Your task to perform on an android device: Google the capital of Colombia Image 0: 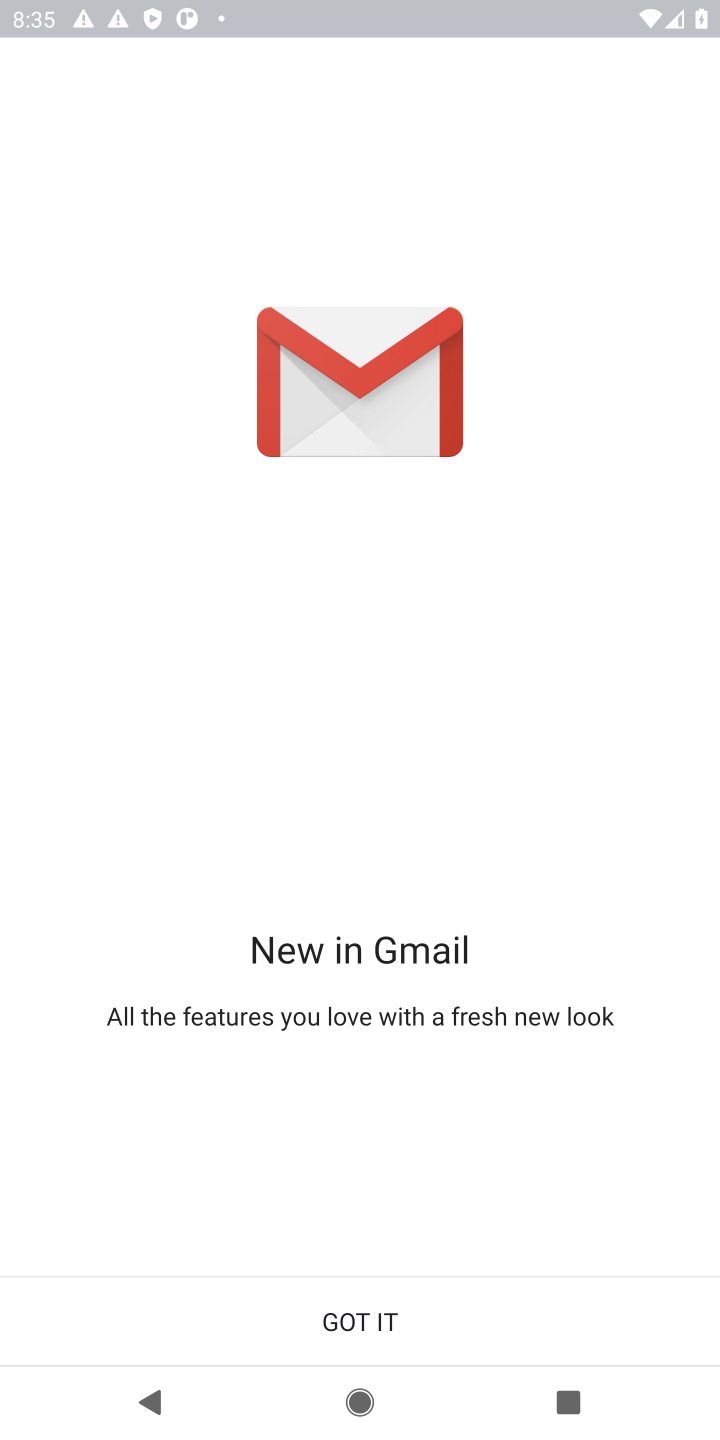
Step 0: press home button
Your task to perform on an android device: Google the capital of Colombia Image 1: 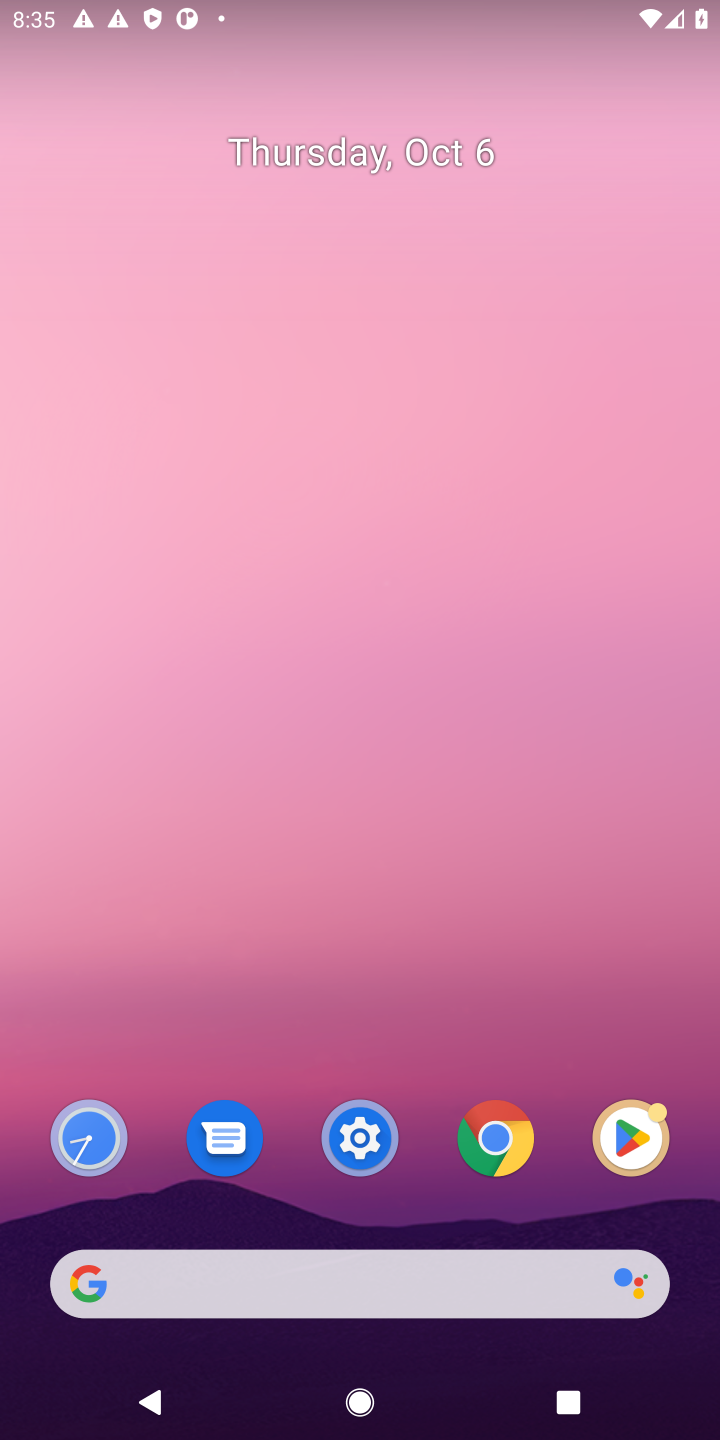
Step 1: click (383, 1273)
Your task to perform on an android device: Google the capital of Colombia Image 2: 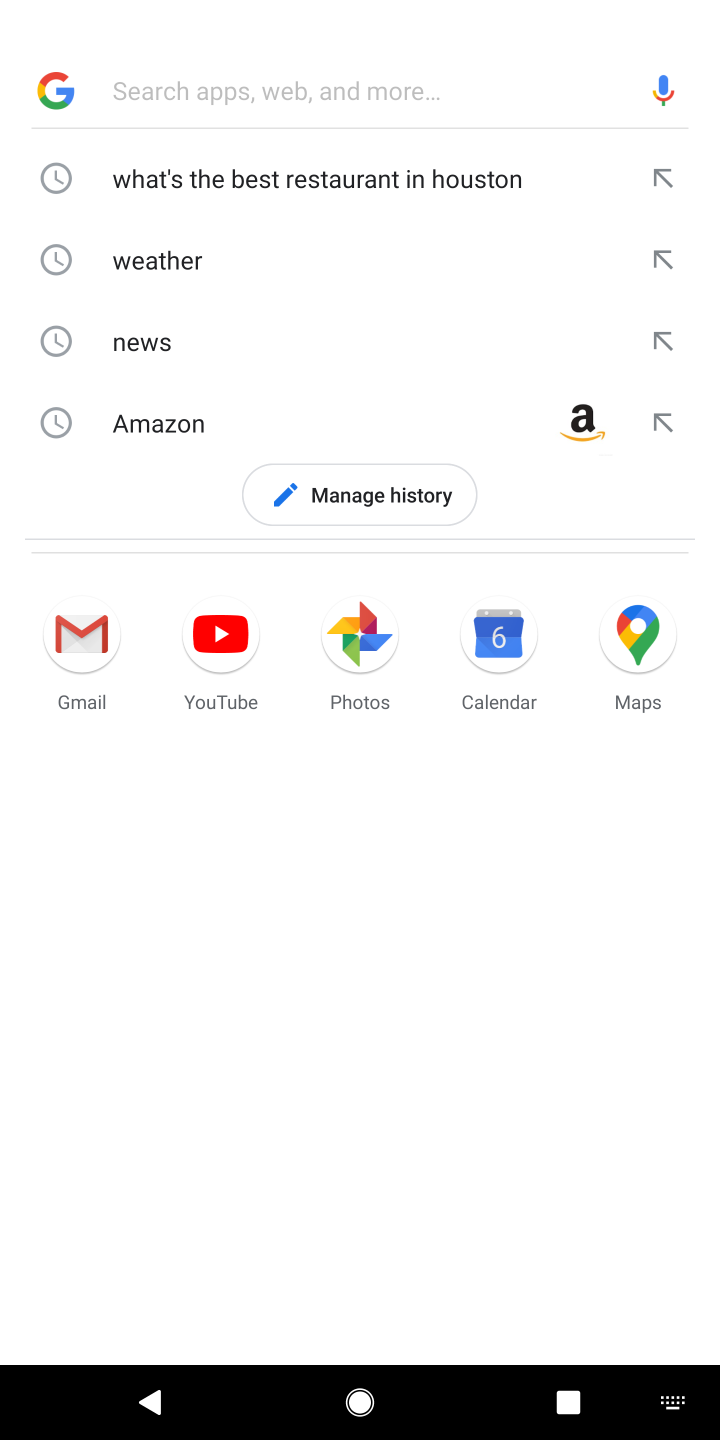
Step 2: type " capital of Colombia"
Your task to perform on an android device: Google the capital of Colombia Image 3: 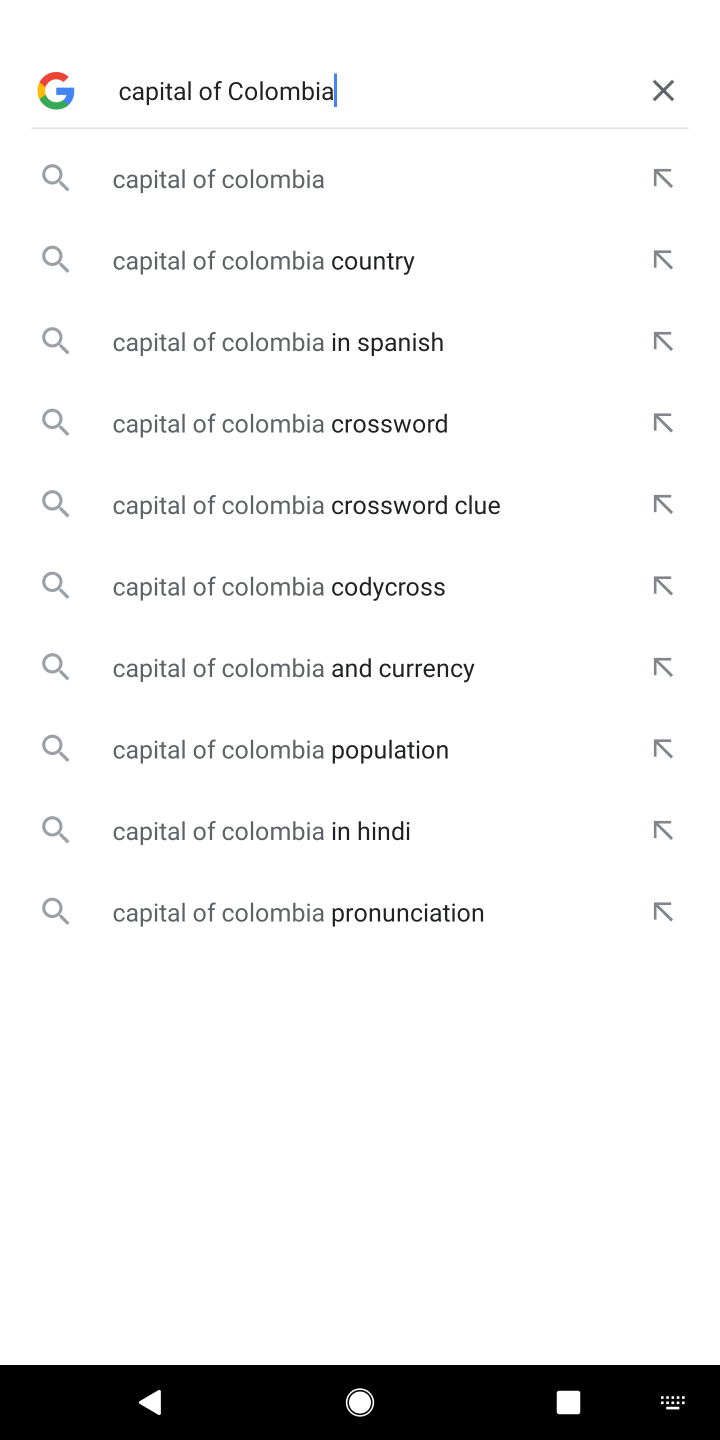
Step 3: click (202, 186)
Your task to perform on an android device: Google the capital of Colombia Image 4: 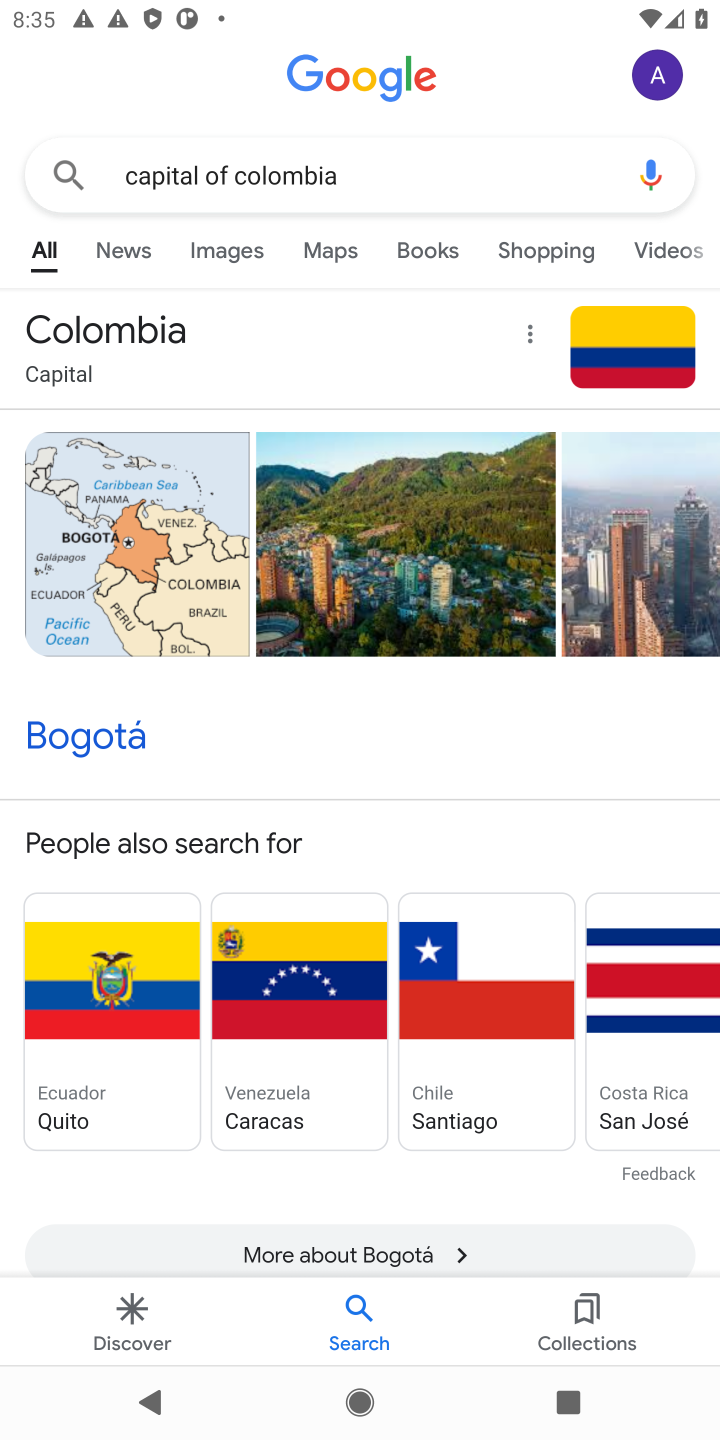
Step 4: task complete